Your task to perform on an android device: set the timer Image 0: 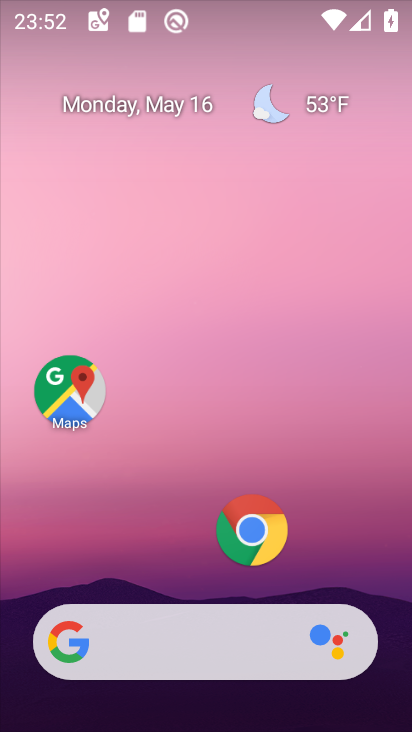
Step 0: drag from (307, 296) to (305, 255)
Your task to perform on an android device: set the timer Image 1: 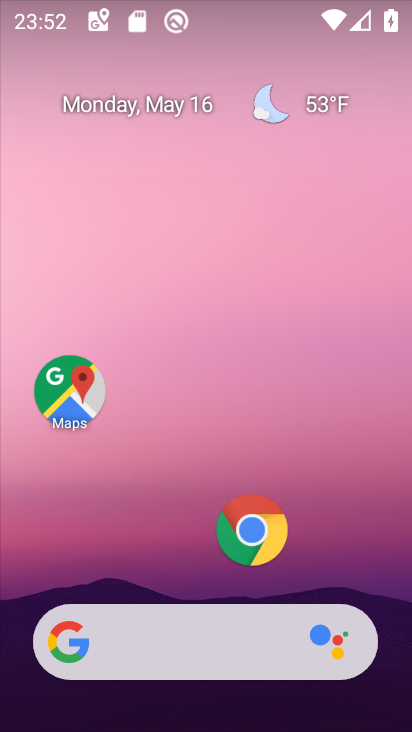
Step 1: drag from (331, 567) to (247, 210)
Your task to perform on an android device: set the timer Image 2: 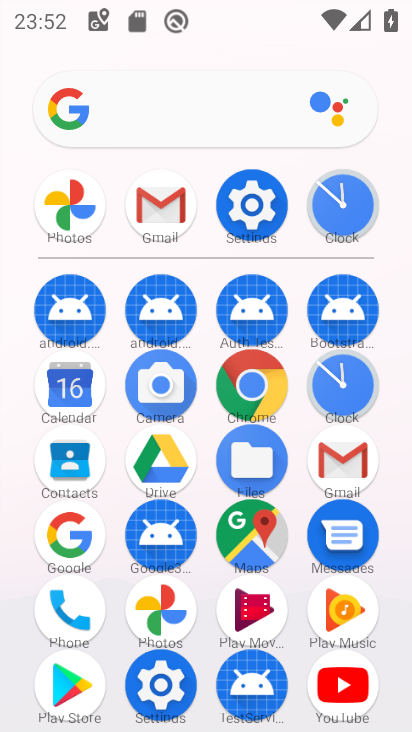
Step 2: click (361, 218)
Your task to perform on an android device: set the timer Image 3: 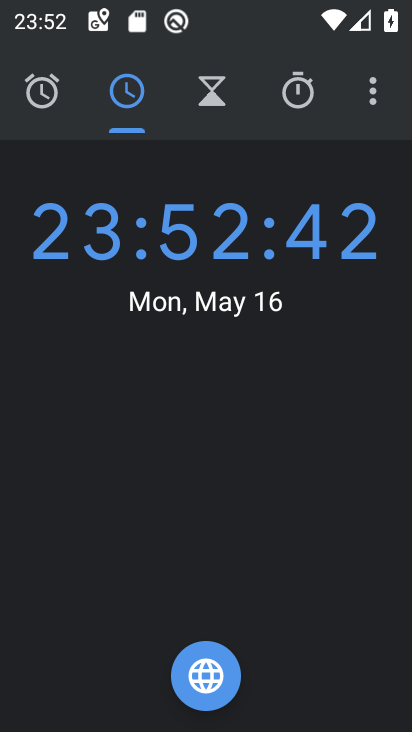
Step 3: click (219, 81)
Your task to perform on an android device: set the timer Image 4: 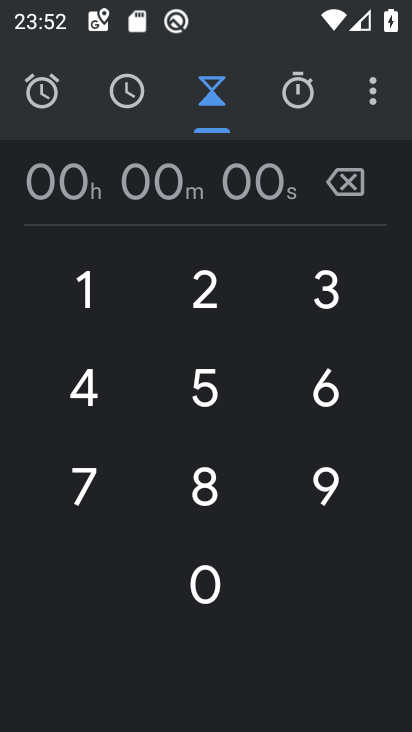
Step 4: click (96, 280)
Your task to perform on an android device: set the timer Image 5: 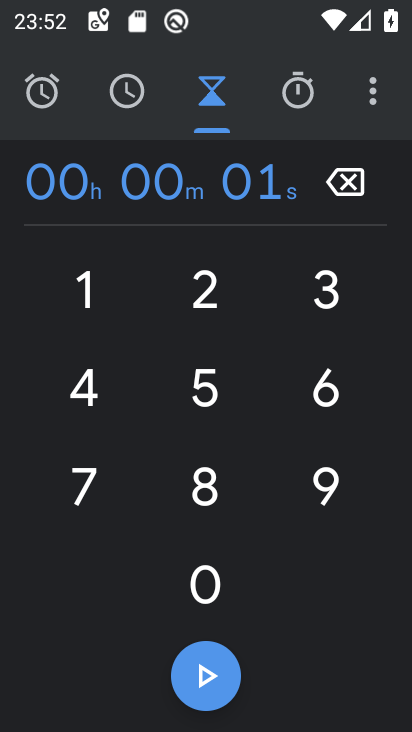
Step 5: click (175, 280)
Your task to perform on an android device: set the timer Image 6: 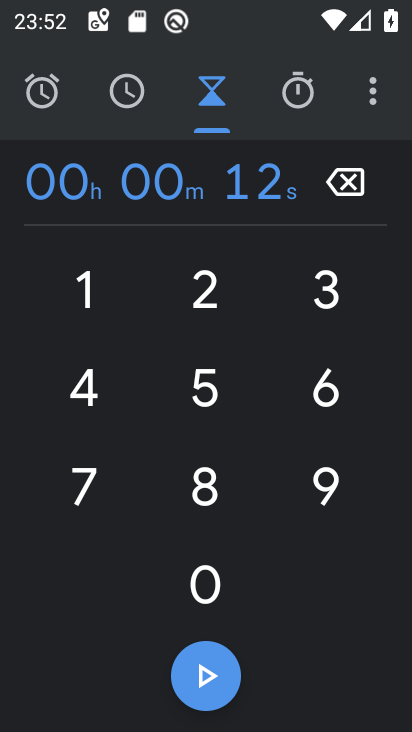
Step 6: click (359, 292)
Your task to perform on an android device: set the timer Image 7: 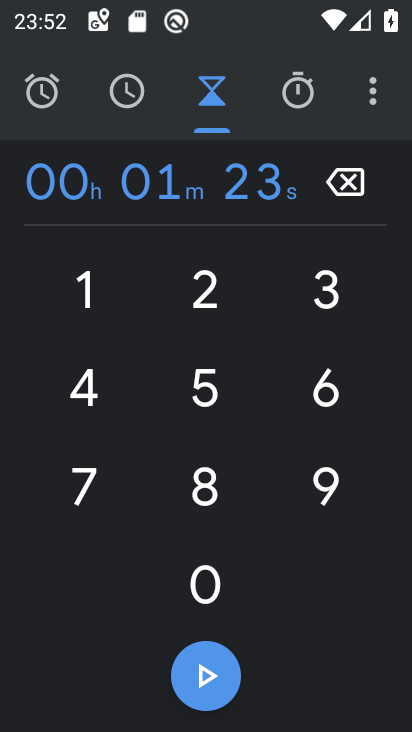
Step 7: click (324, 401)
Your task to perform on an android device: set the timer Image 8: 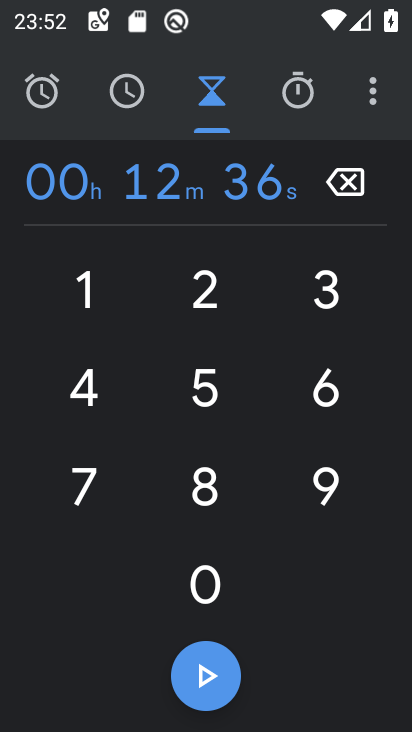
Step 8: click (215, 381)
Your task to perform on an android device: set the timer Image 9: 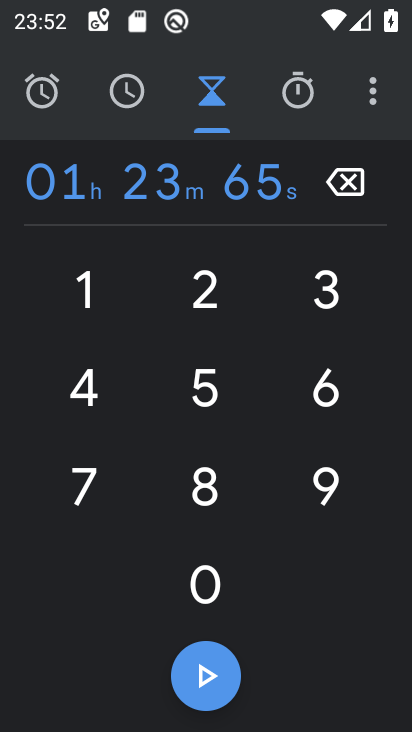
Step 9: click (96, 379)
Your task to perform on an android device: set the timer Image 10: 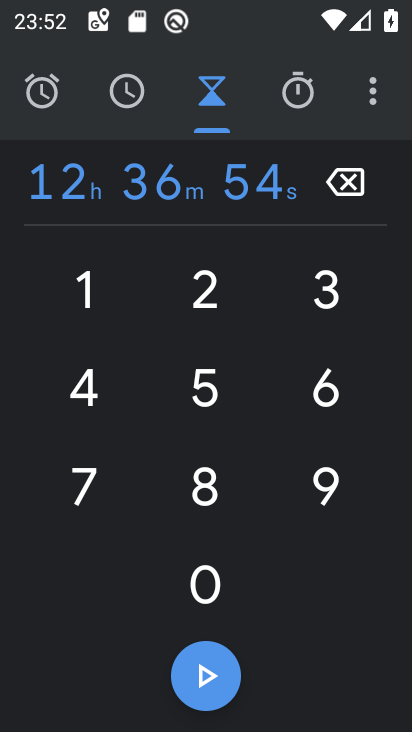
Step 10: click (217, 674)
Your task to perform on an android device: set the timer Image 11: 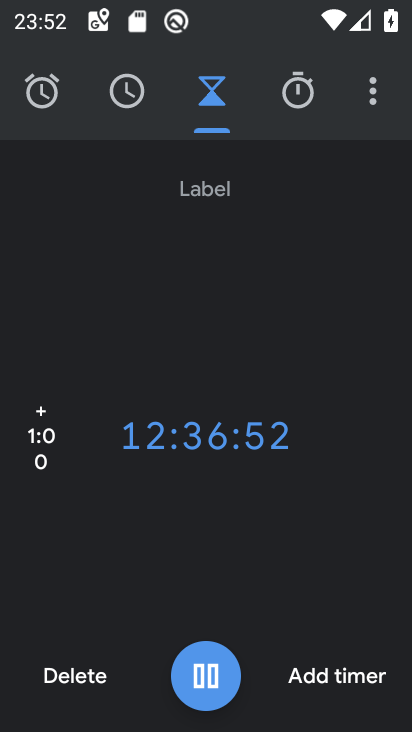
Step 11: task complete